Your task to perform on an android device: Go to wifi settings Image 0: 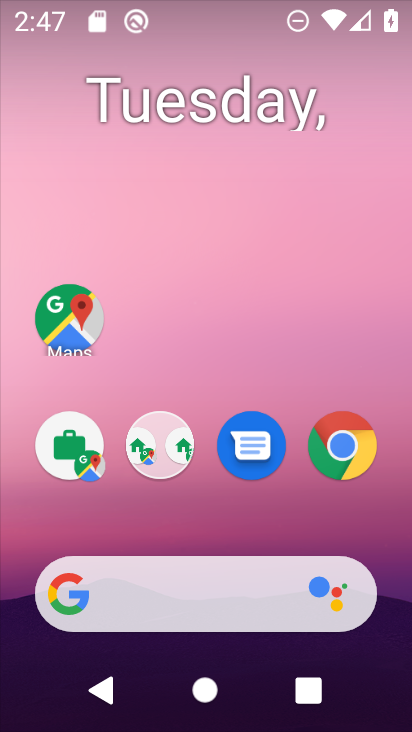
Step 0: drag from (234, 518) to (286, 166)
Your task to perform on an android device: Go to wifi settings Image 1: 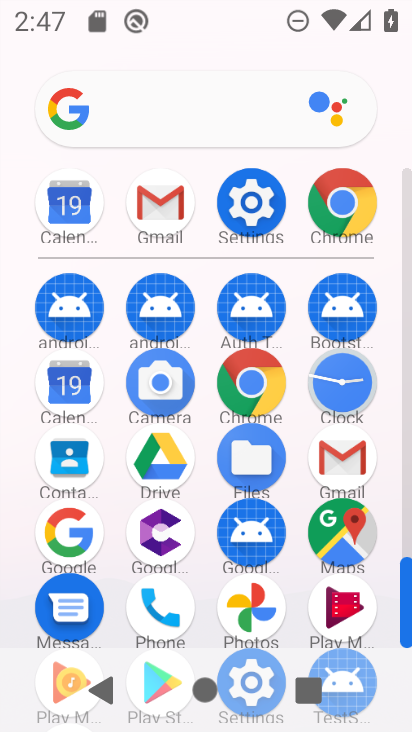
Step 1: click (261, 212)
Your task to perform on an android device: Go to wifi settings Image 2: 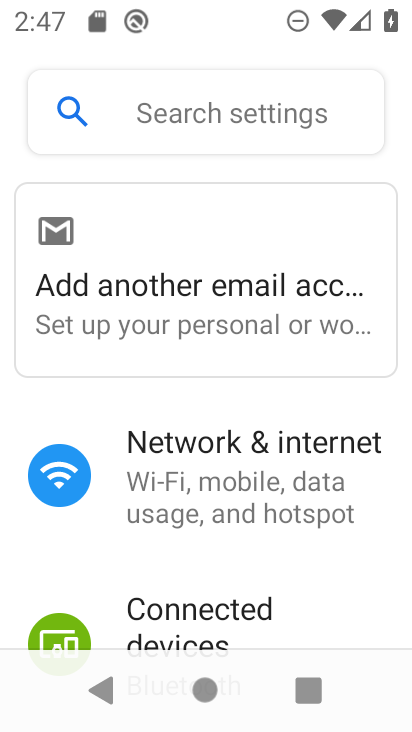
Step 2: click (210, 478)
Your task to perform on an android device: Go to wifi settings Image 3: 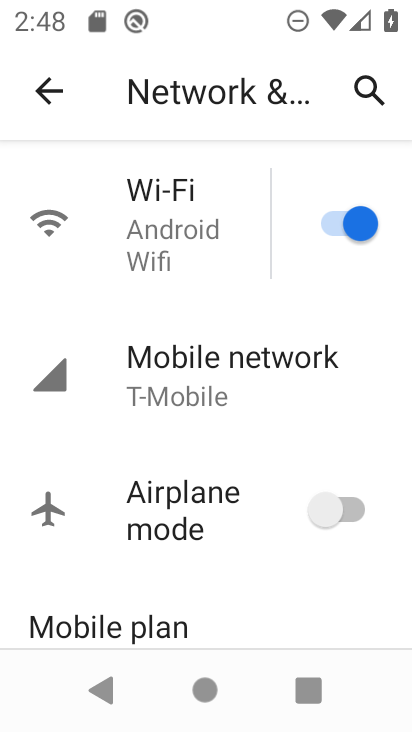
Step 3: click (155, 222)
Your task to perform on an android device: Go to wifi settings Image 4: 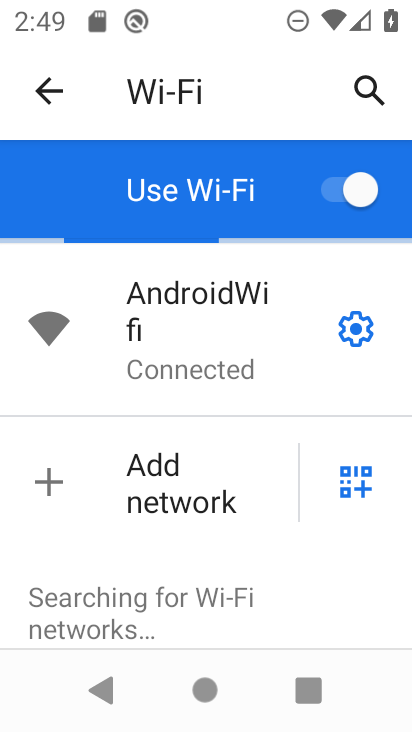
Step 4: task complete